Your task to perform on an android device: Google the capital of Chile Image 0: 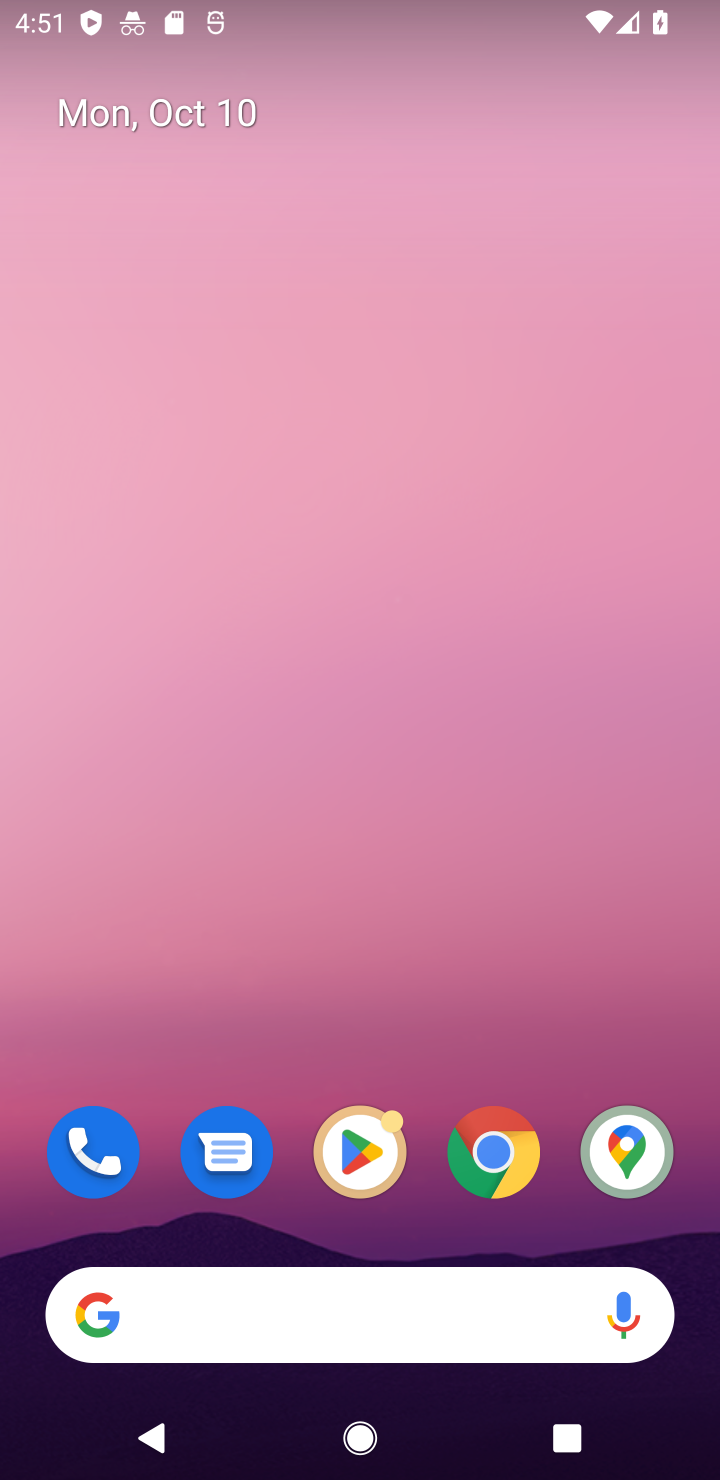
Step 0: click (495, 1153)
Your task to perform on an android device: Google the capital of Chile Image 1: 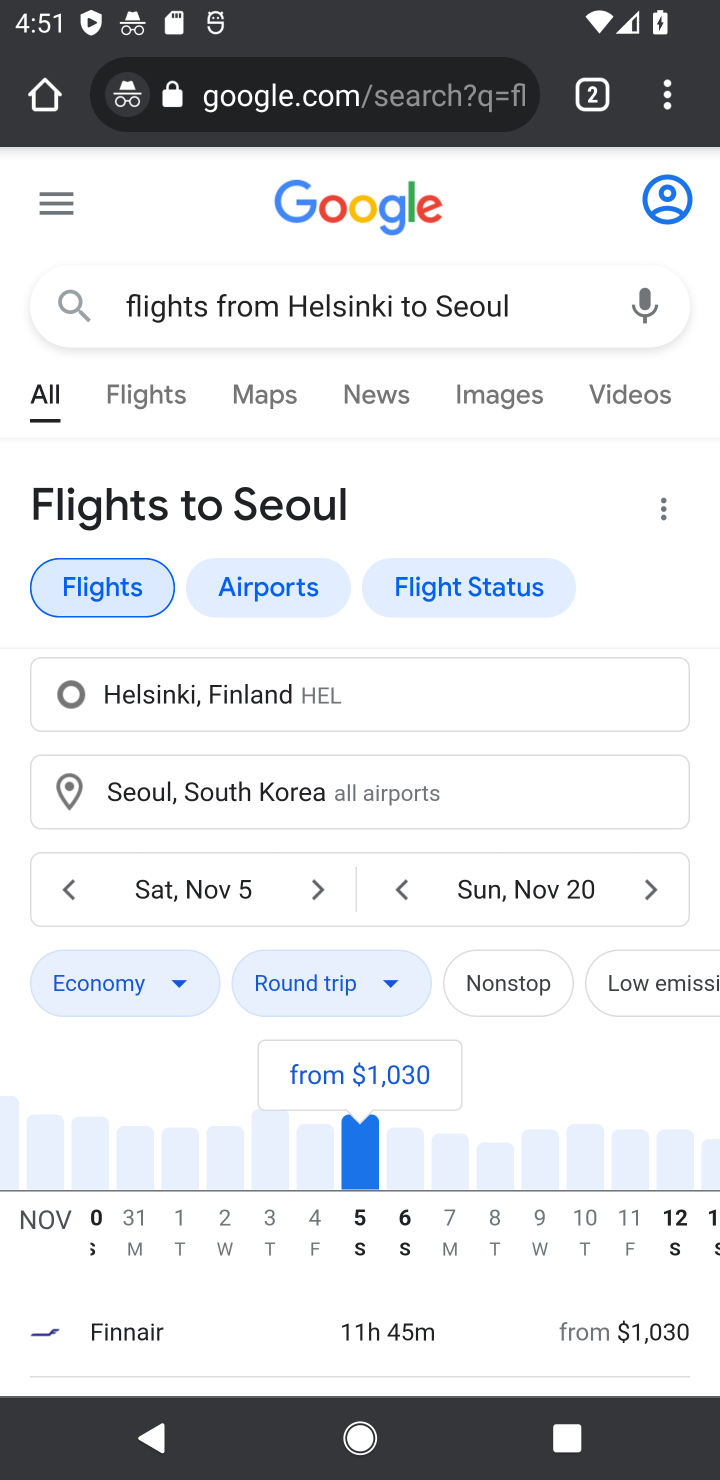
Step 1: click (670, 95)
Your task to perform on an android device: Google the capital of Chile Image 2: 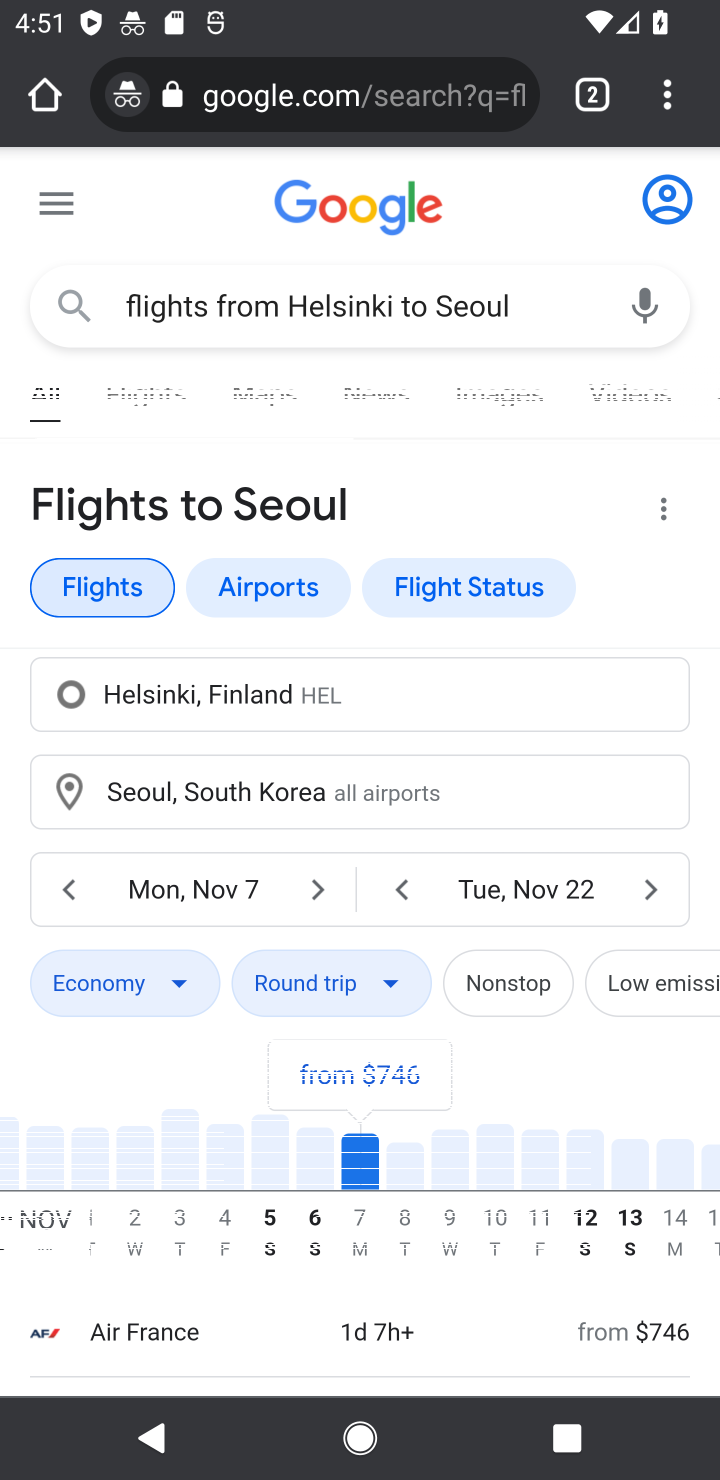
Step 2: click (673, 110)
Your task to perform on an android device: Google the capital of Chile Image 3: 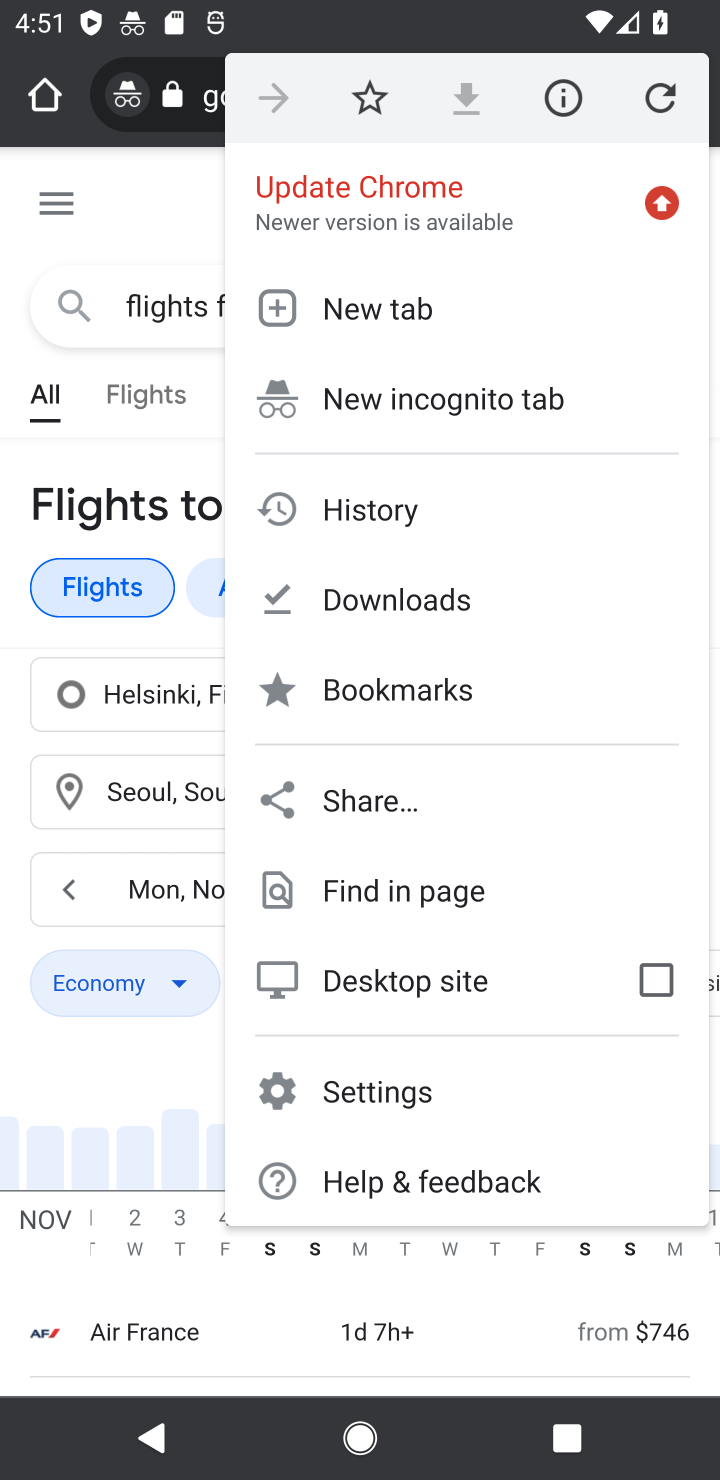
Step 3: click (367, 310)
Your task to perform on an android device: Google the capital of Chile Image 4: 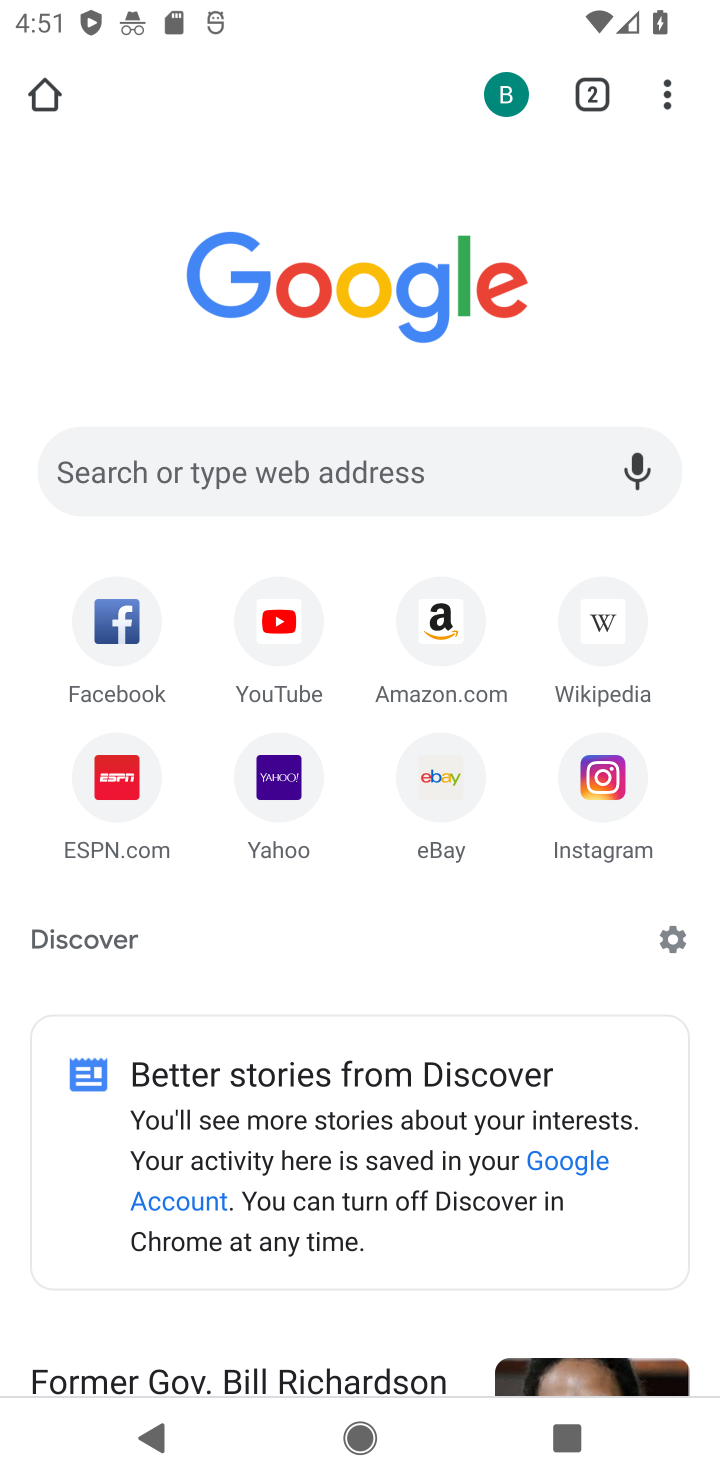
Step 4: click (286, 489)
Your task to perform on an android device: Google the capital of Chile Image 5: 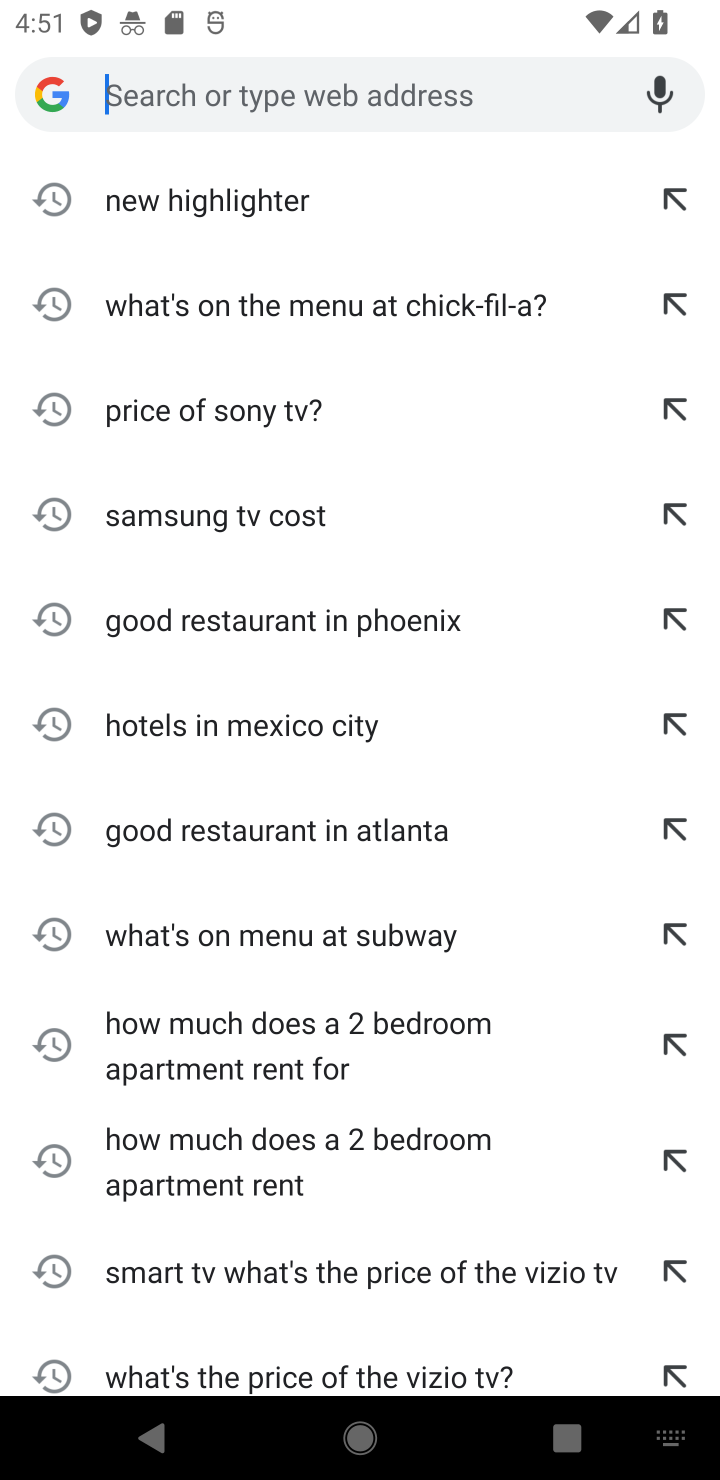
Step 5: type "capital of Chile"
Your task to perform on an android device: Google the capital of Chile Image 6: 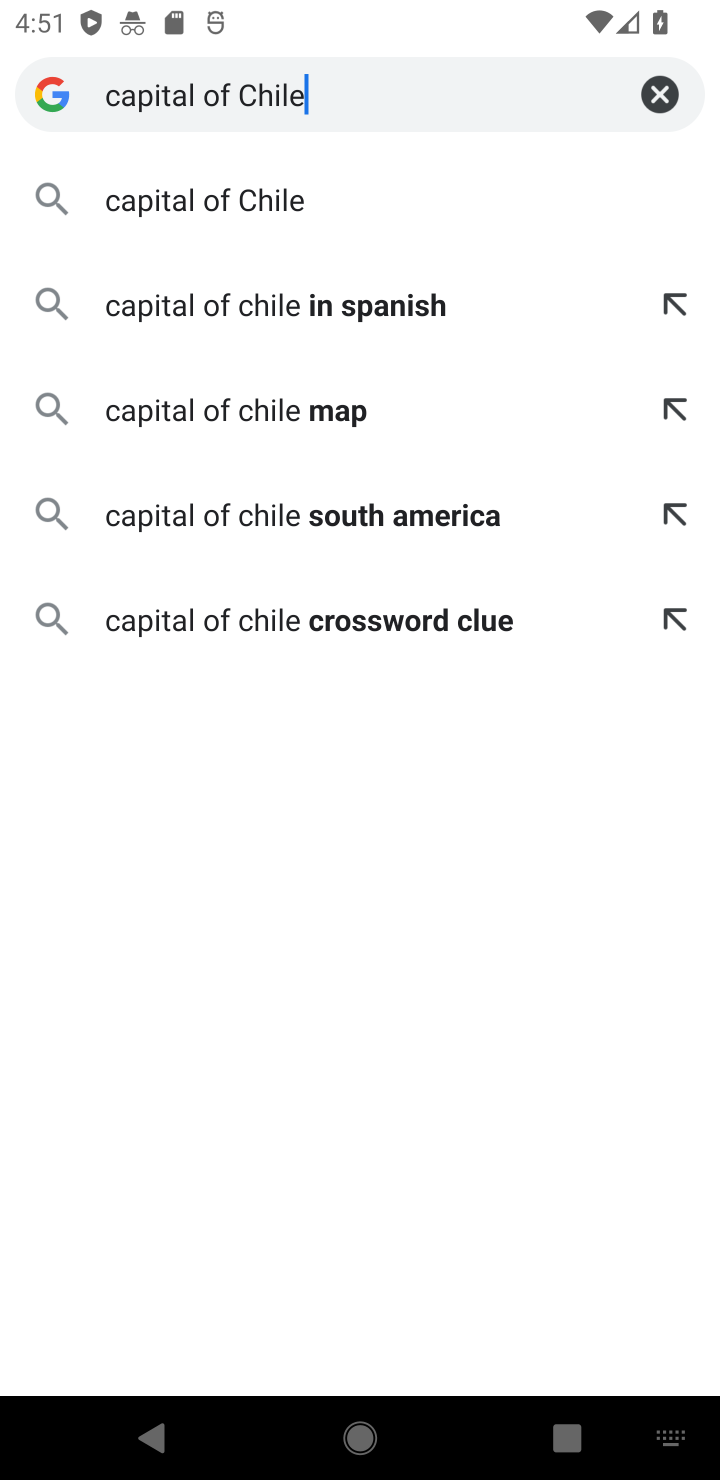
Step 6: click (259, 203)
Your task to perform on an android device: Google the capital of Chile Image 7: 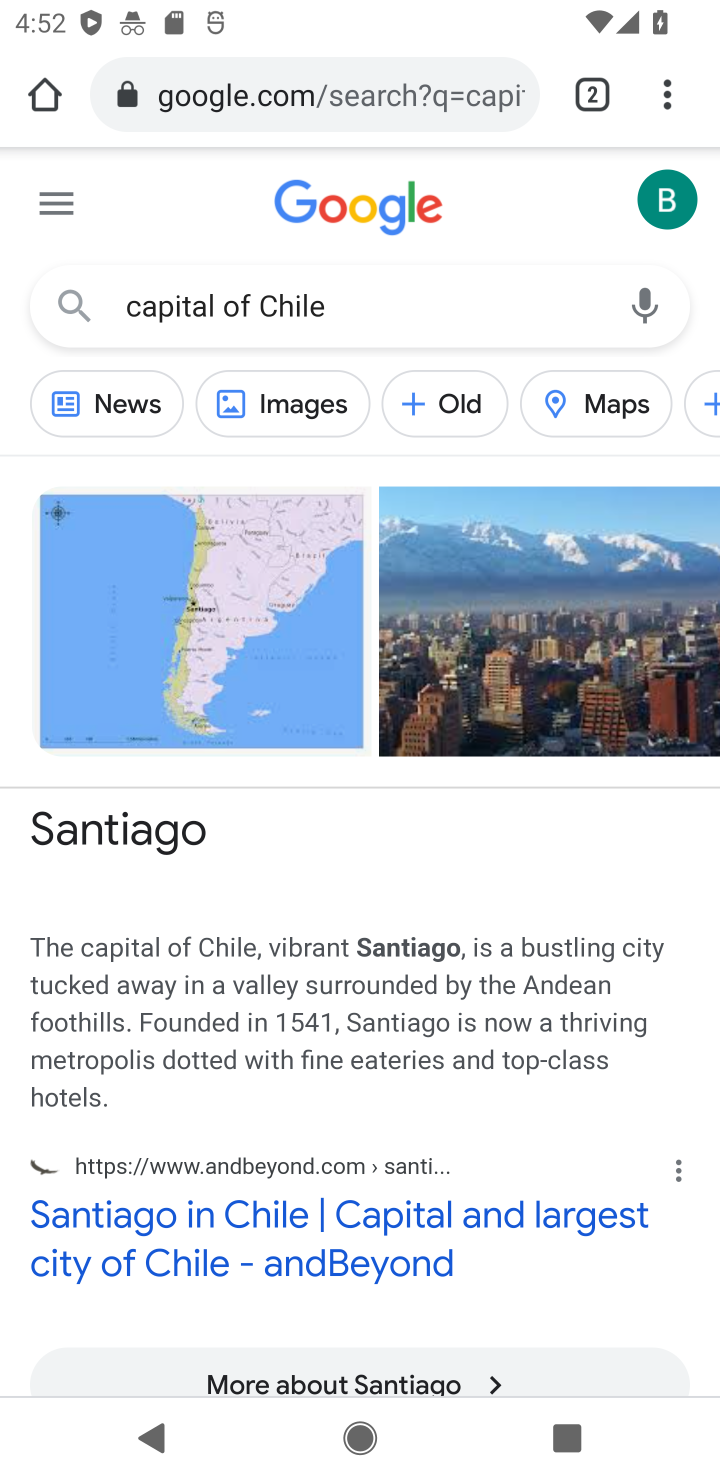
Step 7: task complete